Your task to perform on an android device: change timer sound Image 0: 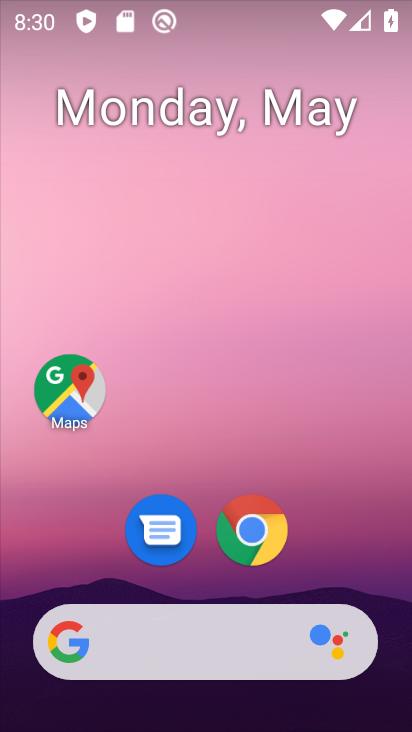
Step 0: drag from (390, 610) to (283, 159)
Your task to perform on an android device: change timer sound Image 1: 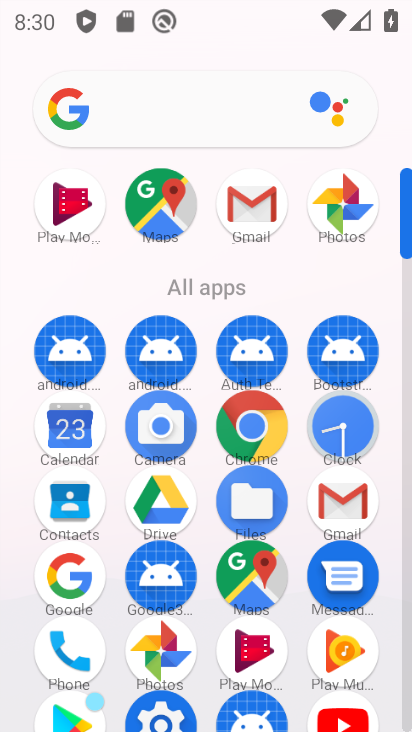
Step 1: click (354, 416)
Your task to perform on an android device: change timer sound Image 2: 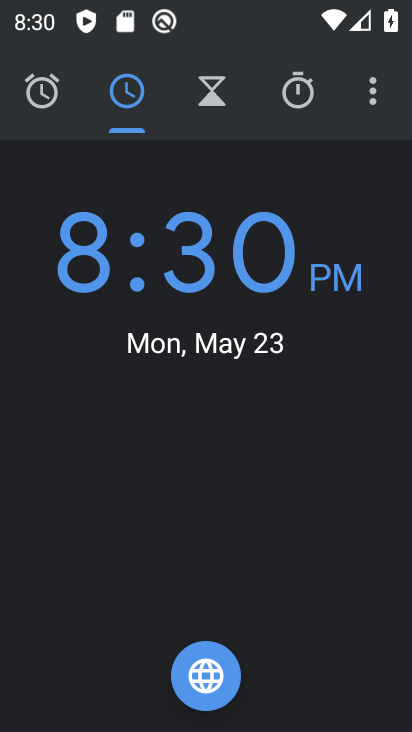
Step 2: click (363, 89)
Your task to perform on an android device: change timer sound Image 3: 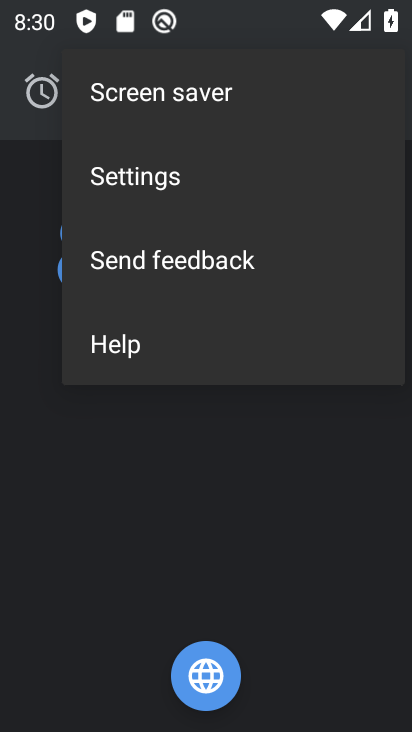
Step 3: click (277, 173)
Your task to perform on an android device: change timer sound Image 4: 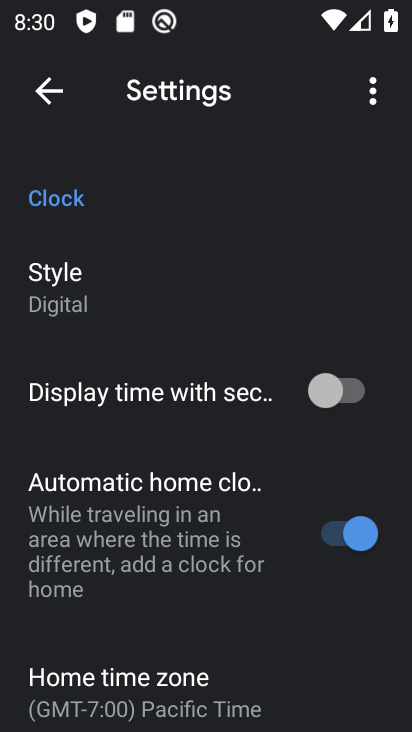
Step 4: drag from (260, 605) to (226, 164)
Your task to perform on an android device: change timer sound Image 5: 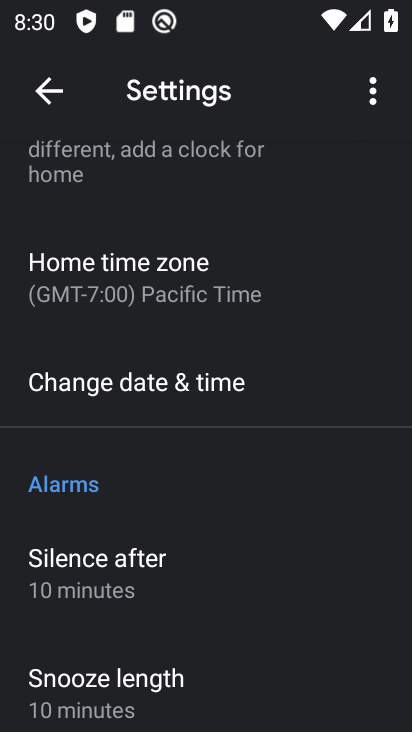
Step 5: drag from (181, 699) to (139, 87)
Your task to perform on an android device: change timer sound Image 6: 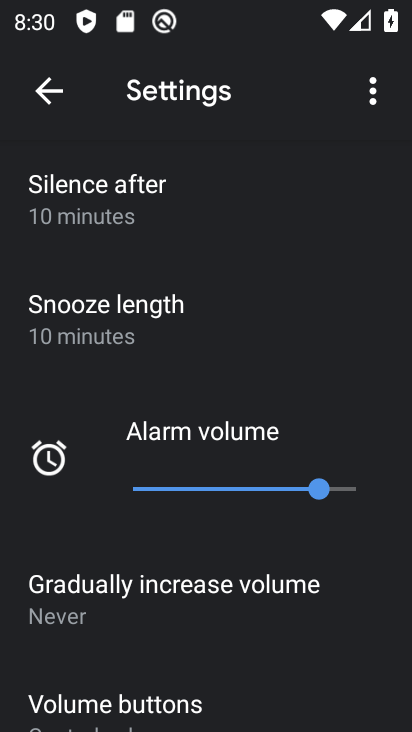
Step 6: drag from (213, 630) to (248, 208)
Your task to perform on an android device: change timer sound Image 7: 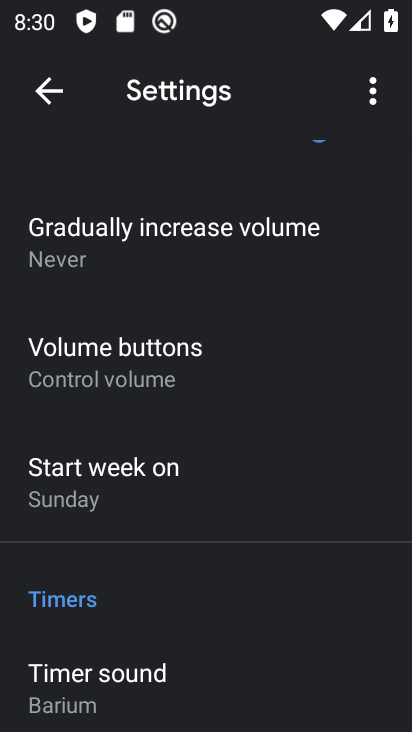
Step 7: drag from (224, 537) to (248, 181)
Your task to perform on an android device: change timer sound Image 8: 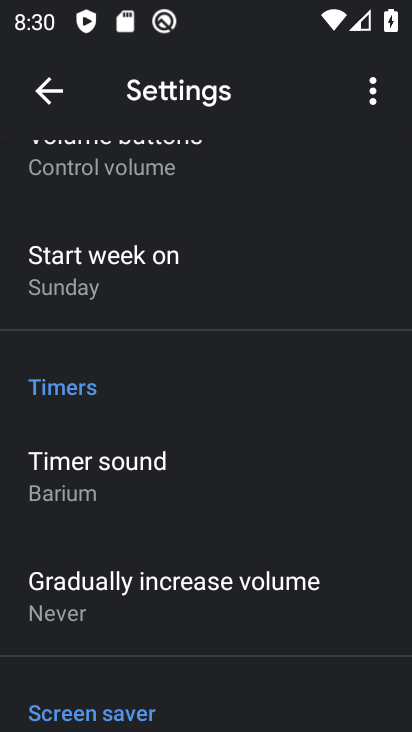
Step 8: click (193, 466)
Your task to perform on an android device: change timer sound Image 9: 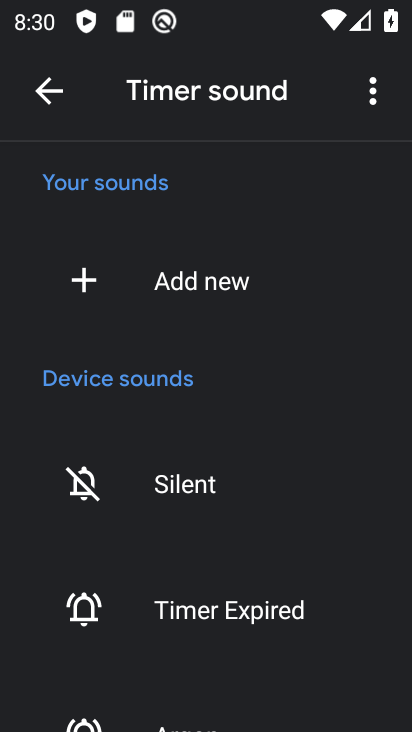
Step 9: click (243, 627)
Your task to perform on an android device: change timer sound Image 10: 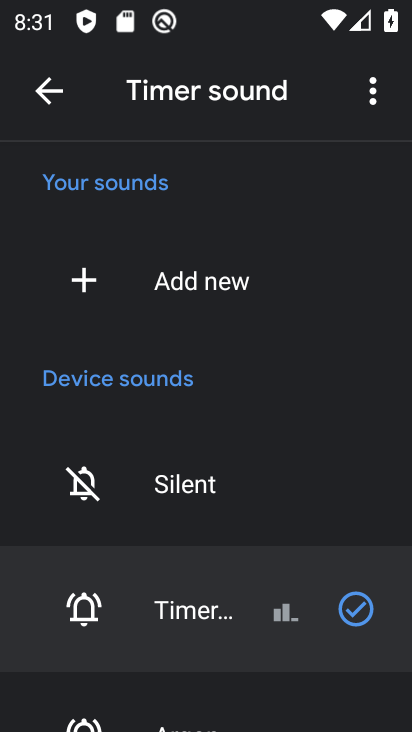
Step 10: task complete